Your task to perform on an android device: change your default location settings in chrome Image 0: 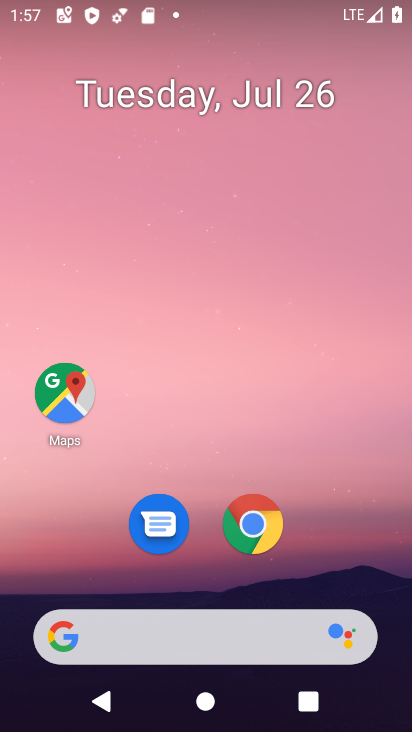
Step 0: click (258, 513)
Your task to perform on an android device: change your default location settings in chrome Image 1: 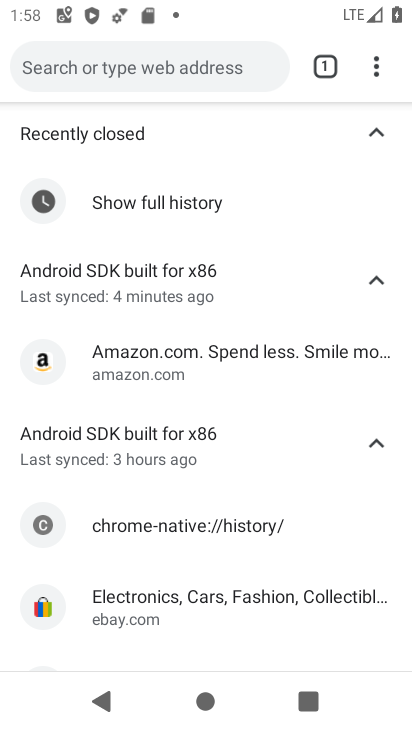
Step 1: click (374, 69)
Your task to perform on an android device: change your default location settings in chrome Image 2: 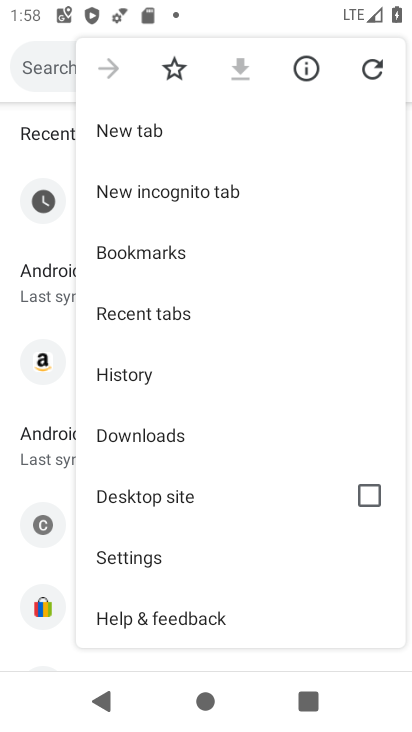
Step 2: click (156, 557)
Your task to perform on an android device: change your default location settings in chrome Image 3: 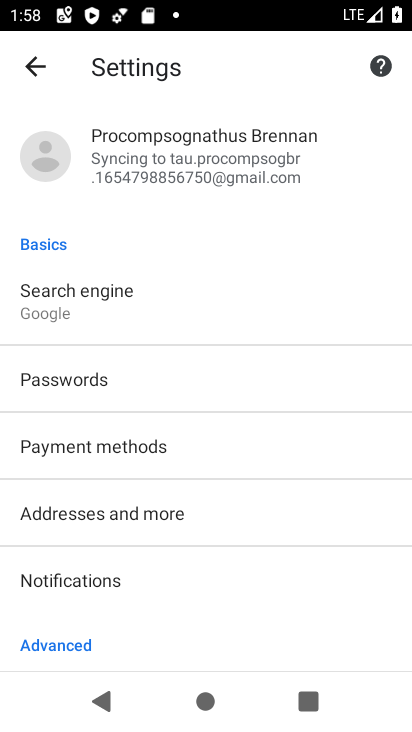
Step 3: drag from (231, 593) to (263, 209)
Your task to perform on an android device: change your default location settings in chrome Image 4: 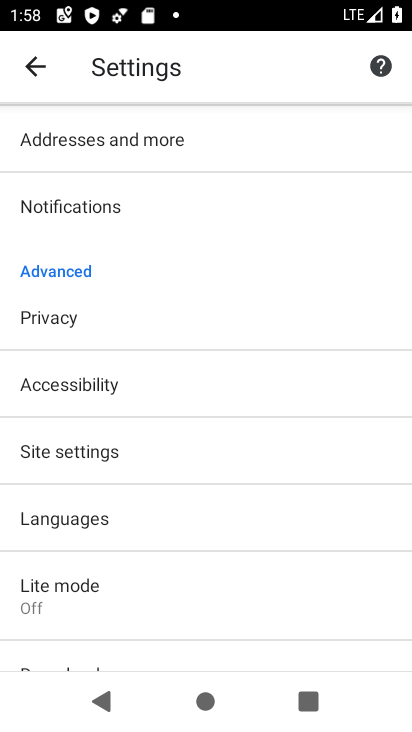
Step 4: click (109, 451)
Your task to perform on an android device: change your default location settings in chrome Image 5: 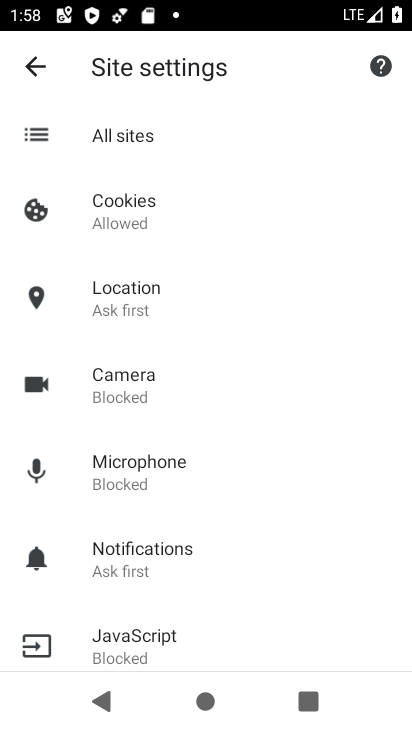
Step 5: click (149, 288)
Your task to perform on an android device: change your default location settings in chrome Image 6: 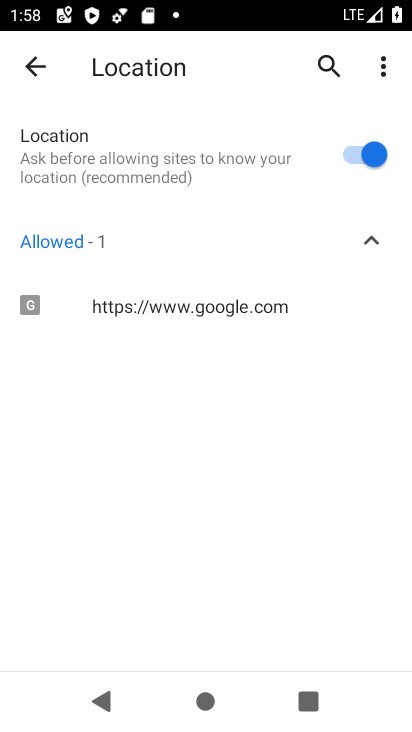
Step 6: click (361, 152)
Your task to perform on an android device: change your default location settings in chrome Image 7: 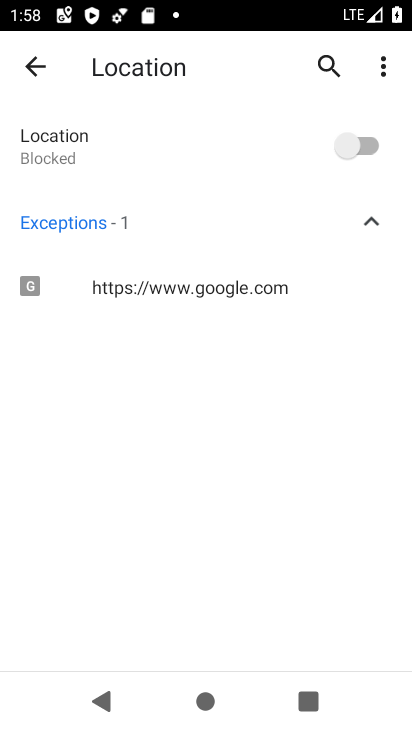
Step 7: task complete